Your task to perform on an android device: toggle priority inbox in the gmail app Image 0: 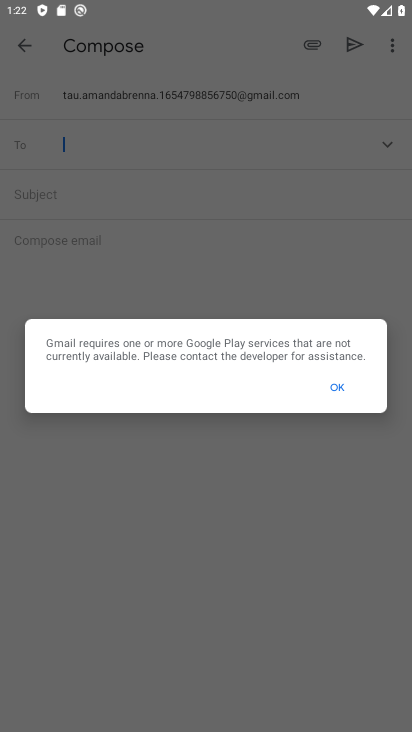
Step 0: click (330, 385)
Your task to perform on an android device: toggle priority inbox in the gmail app Image 1: 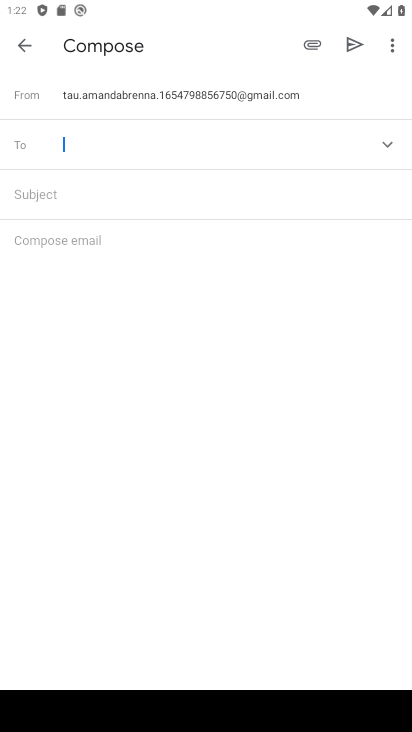
Step 1: press home button
Your task to perform on an android device: toggle priority inbox in the gmail app Image 2: 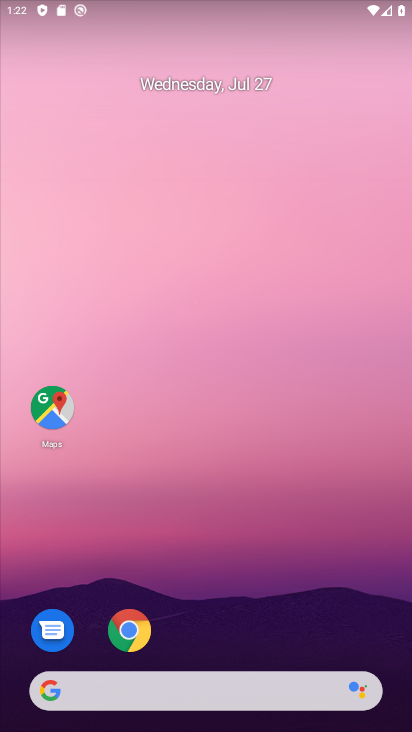
Step 2: drag from (183, 627) to (166, 368)
Your task to perform on an android device: toggle priority inbox in the gmail app Image 3: 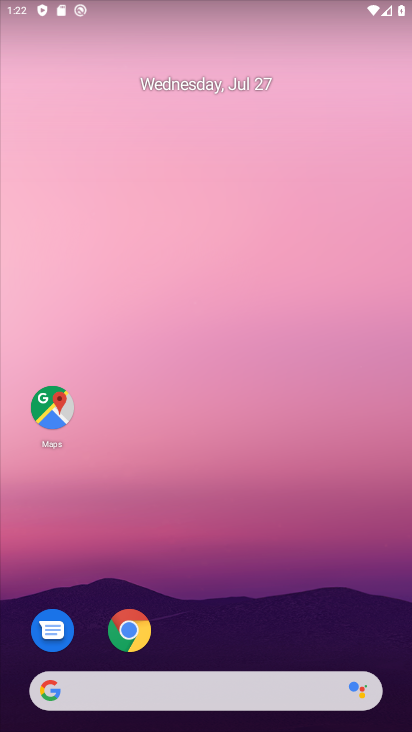
Step 3: drag from (240, 607) to (251, 161)
Your task to perform on an android device: toggle priority inbox in the gmail app Image 4: 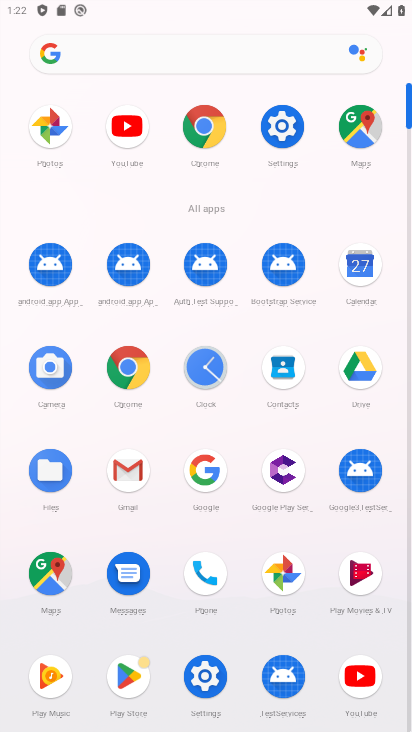
Step 4: click (133, 484)
Your task to perform on an android device: toggle priority inbox in the gmail app Image 5: 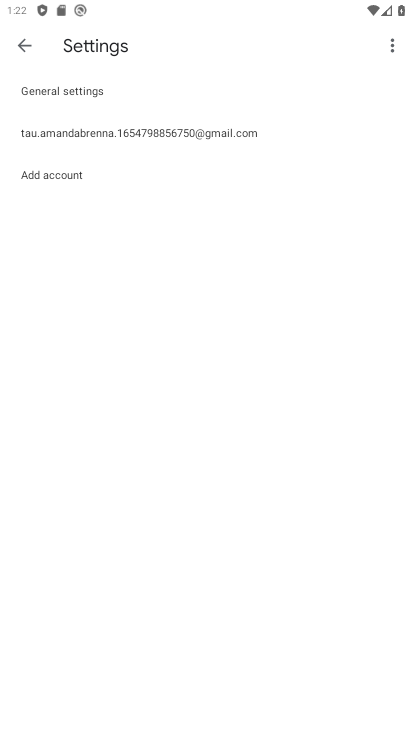
Step 5: click (55, 136)
Your task to perform on an android device: toggle priority inbox in the gmail app Image 6: 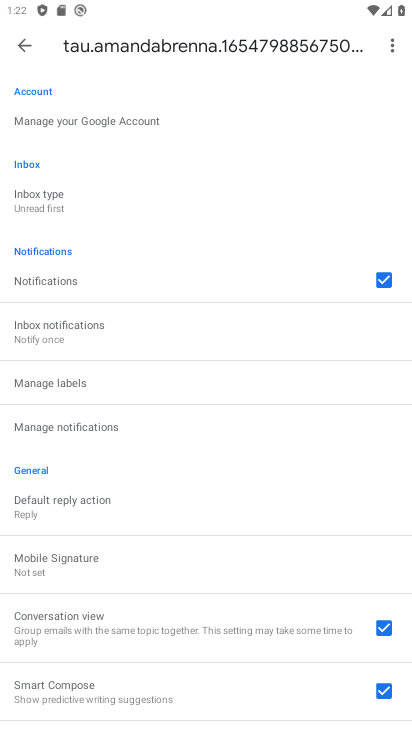
Step 6: click (83, 335)
Your task to perform on an android device: toggle priority inbox in the gmail app Image 7: 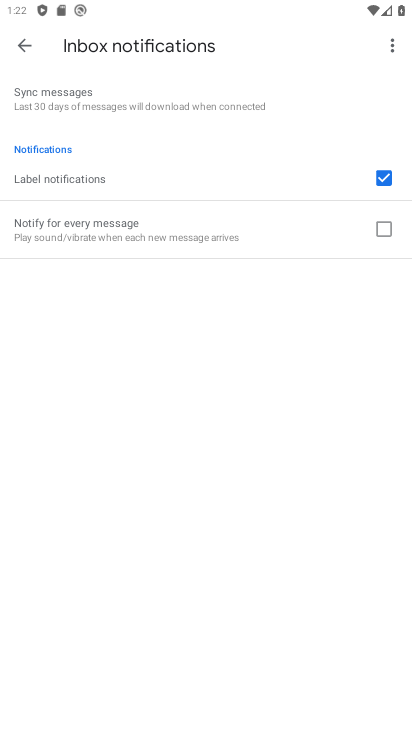
Step 7: click (23, 49)
Your task to perform on an android device: toggle priority inbox in the gmail app Image 8: 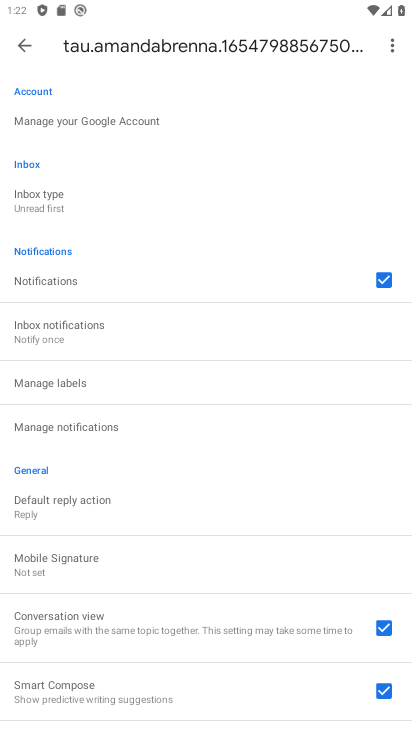
Step 8: click (47, 216)
Your task to perform on an android device: toggle priority inbox in the gmail app Image 9: 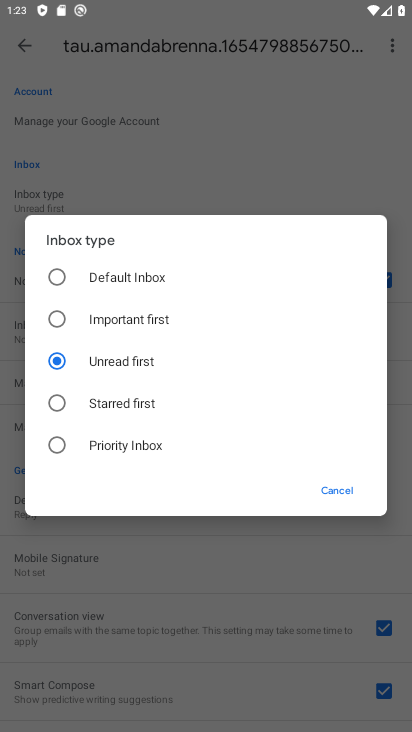
Step 9: click (48, 435)
Your task to perform on an android device: toggle priority inbox in the gmail app Image 10: 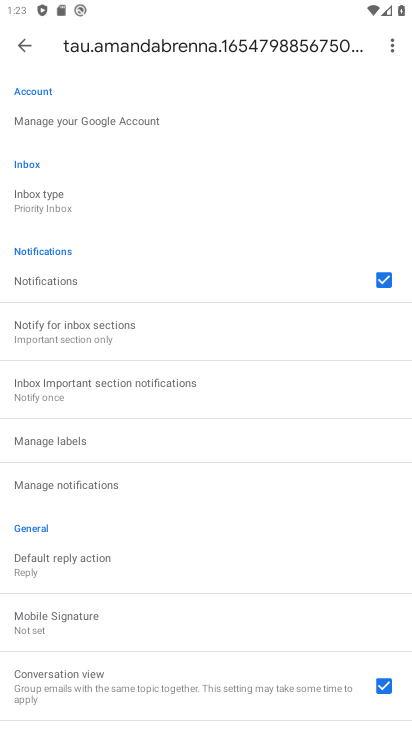
Step 10: task complete